Your task to perform on an android device: clear all cookies in the chrome app Image 0: 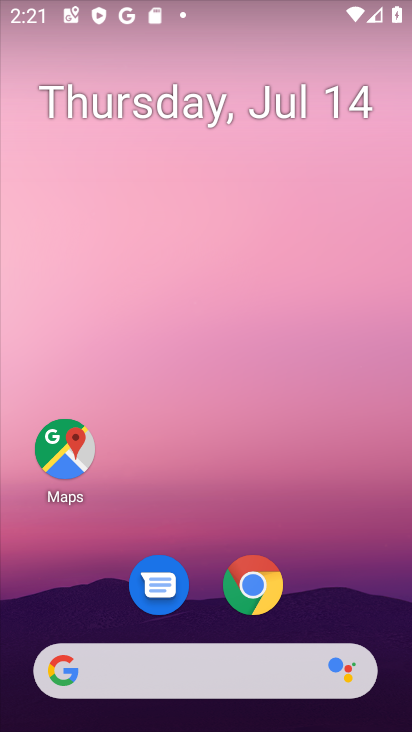
Step 0: click (254, 594)
Your task to perform on an android device: clear all cookies in the chrome app Image 1: 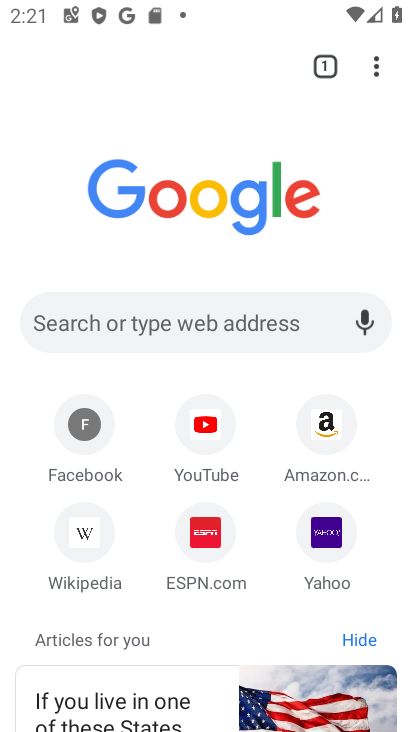
Step 1: click (373, 68)
Your task to perform on an android device: clear all cookies in the chrome app Image 2: 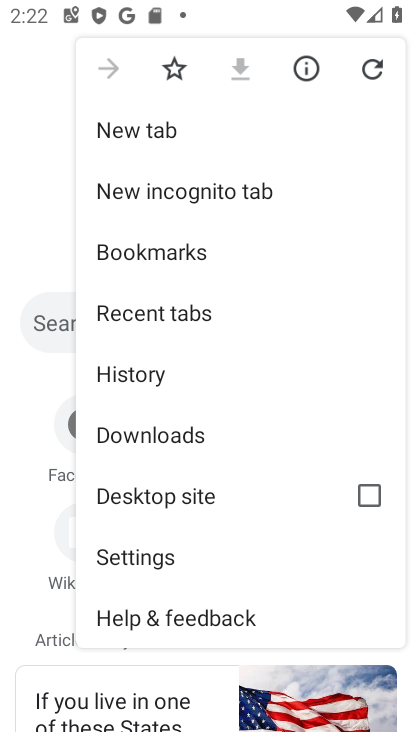
Step 2: click (148, 372)
Your task to perform on an android device: clear all cookies in the chrome app Image 3: 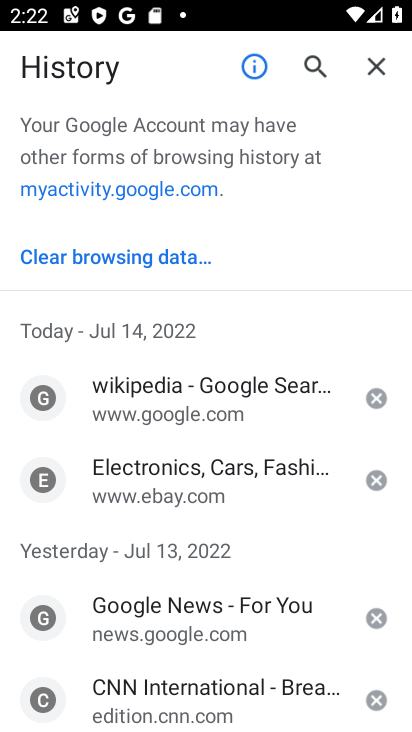
Step 3: click (125, 251)
Your task to perform on an android device: clear all cookies in the chrome app Image 4: 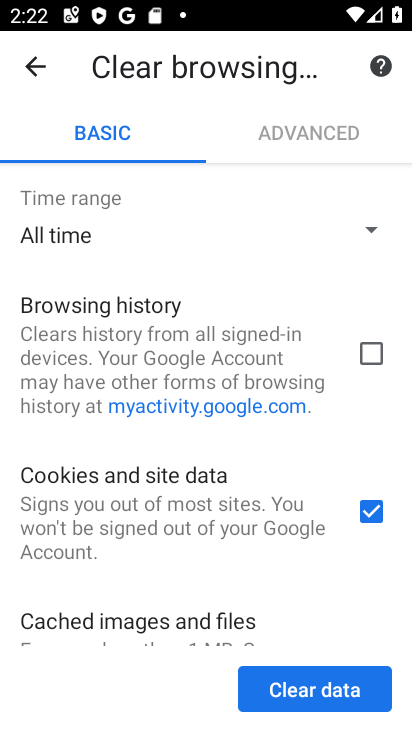
Step 4: click (319, 688)
Your task to perform on an android device: clear all cookies in the chrome app Image 5: 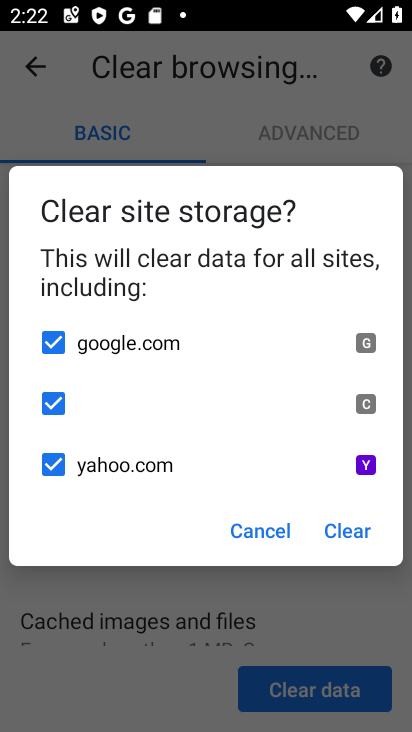
Step 5: click (350, 525)
Your task to perform on an android device: clear all cookies in the chrome app Image 6: 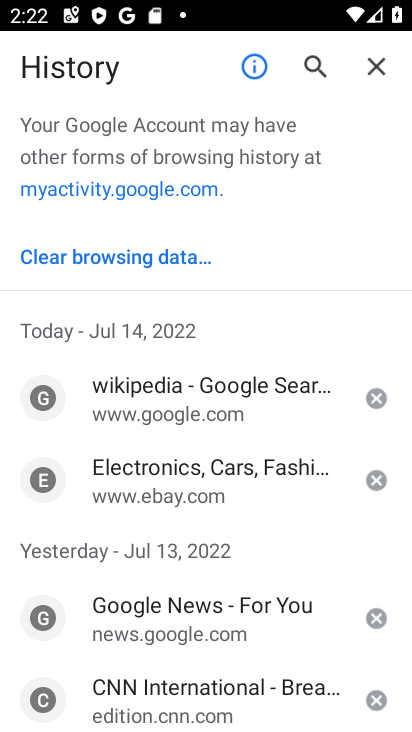
Step 6: task complete